Your task to perform on an android device: clear history in the chrome app Image 0: 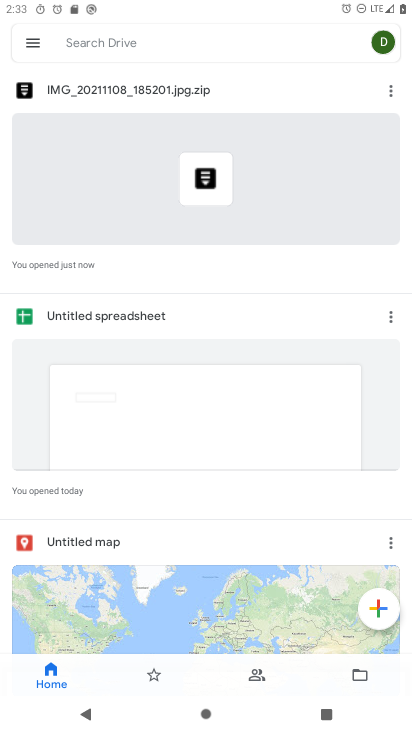
Step 0: press home button
Your task to perform on an android device: clear history in the chrome app Image 1: 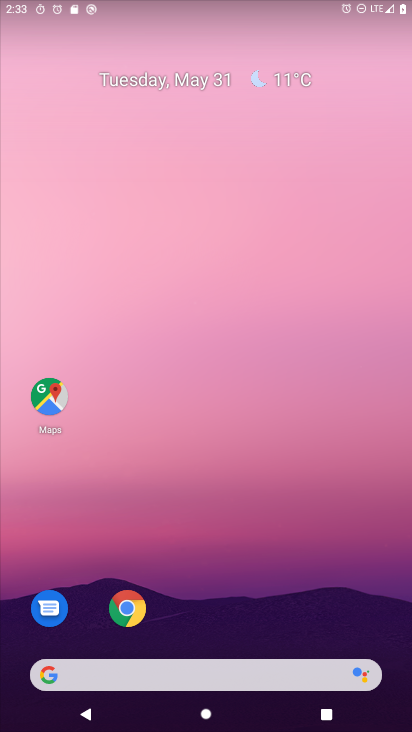
Step 1: click (113, 612)
Your task to perform on an android device: clear history in the chrome app Image 2: 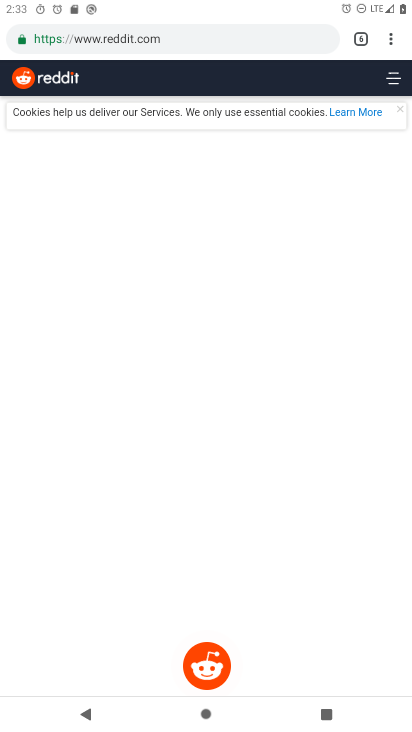
Step 2: click (392, 31)
Your task to perform on an android device: clear history in the chrome app Image 3: 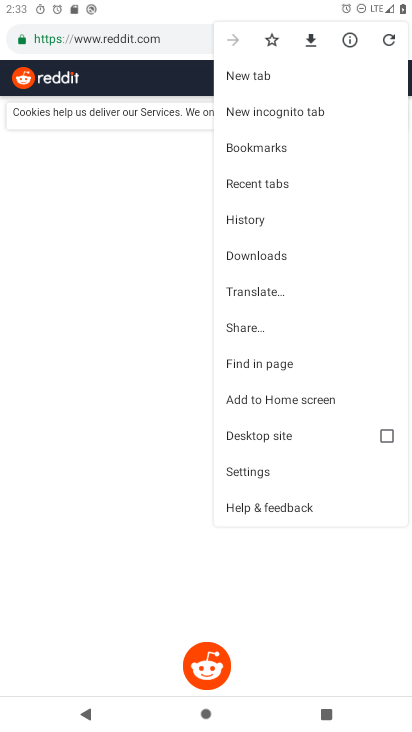
Step 3: click (268, 469)
Your task to perform on an android device: clear history in the chrome app Image 4: 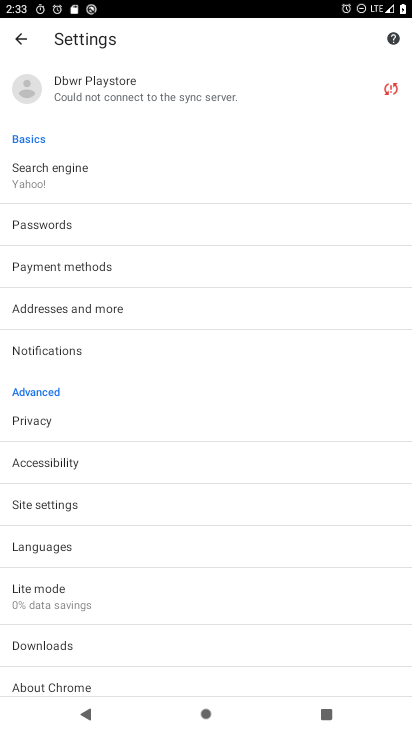
Step 4: click (29, 418)
Your task to perform on an android device: clear history in the chrome app Image 5: 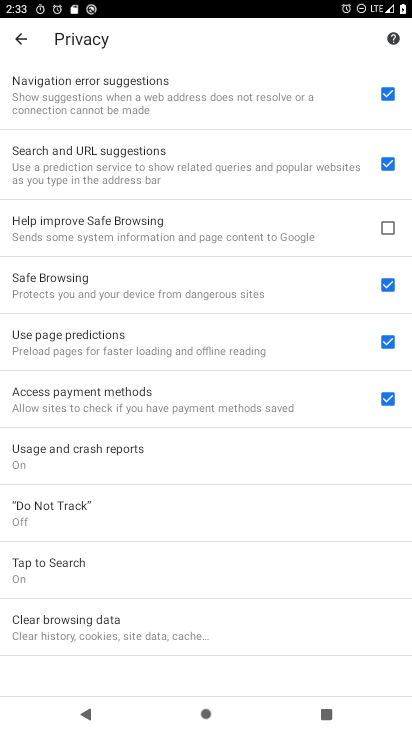
Step 5: click (126, 627)
Your task to perform on an android device: clear history in the chrome app Image 6: 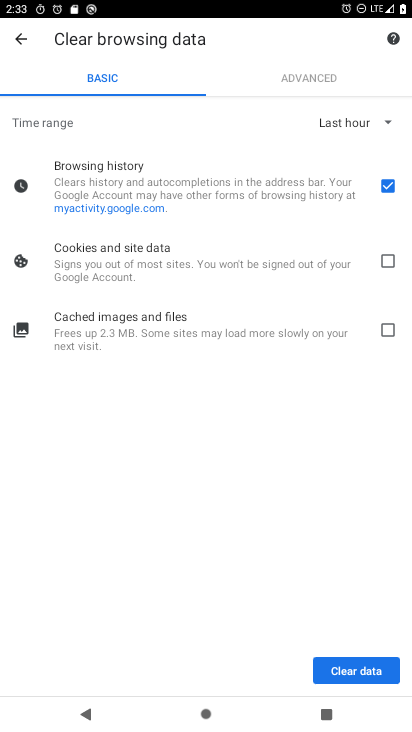
Step 6: click (367, 666)
Your task to perform on an android device: clear history in the chrome app Image 7: 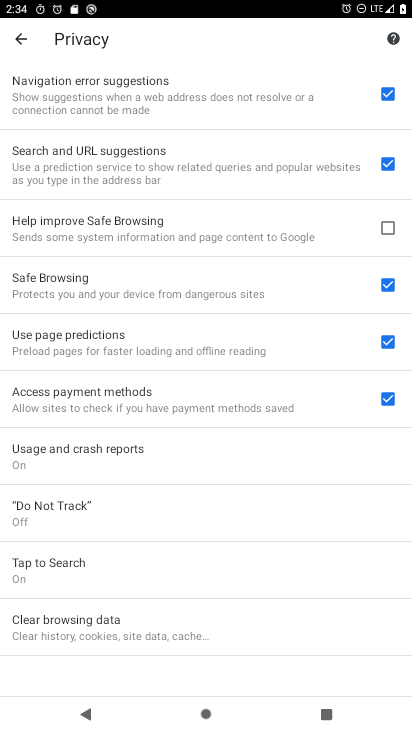
Step 7: task complete